Your task to perform on an android device: turn on priority inbox in the gmail app Image 0: 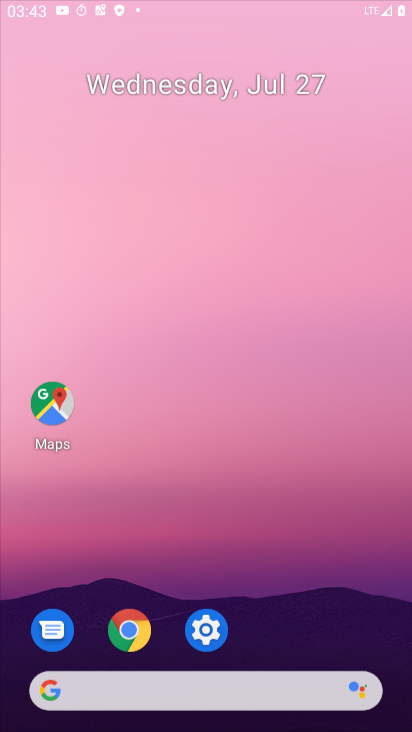
Step 0: drag from (192, 684) to (204, 270)
Your task to perform on an android device: turn on priority inbox in the gmail app Image 1: 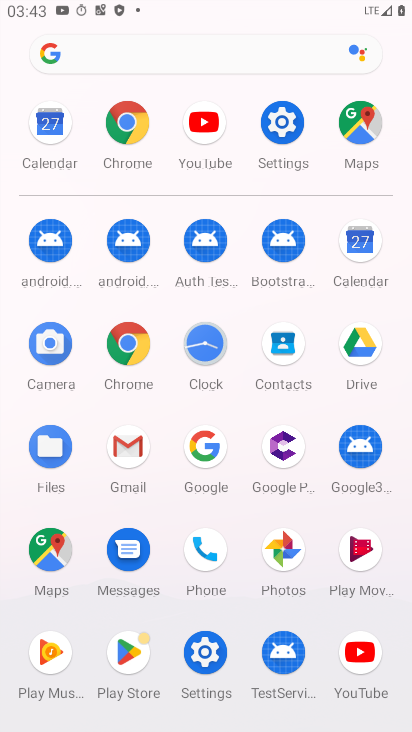
Step 1: click (137, 451)
Your task to perform on an android device: turn on priority inbox in the gmail app Image 2: 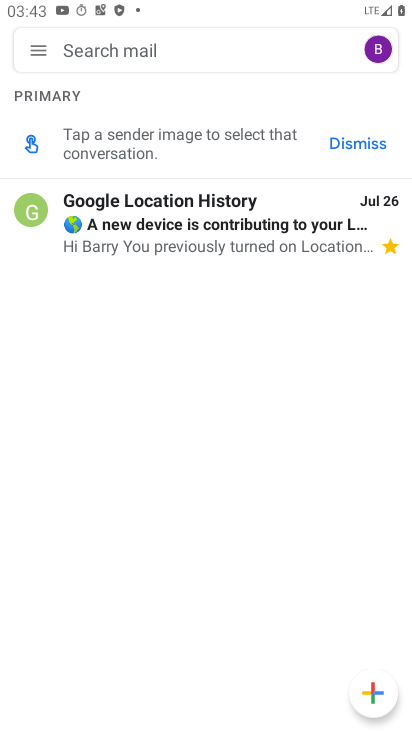
Step 2: click (44, 64)
Your task to perform on an android device: turn on priority inbox in the gmail app Image 3: 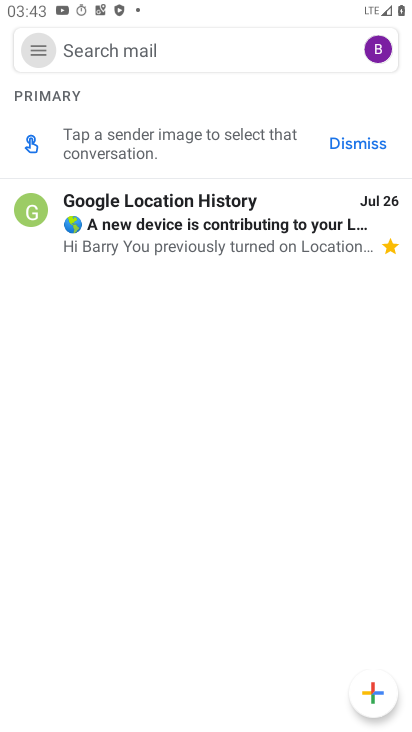
Step 3: click (44, 64)
Your task to perform on an android device: turn on priority inbox in the gmail app Image 4: 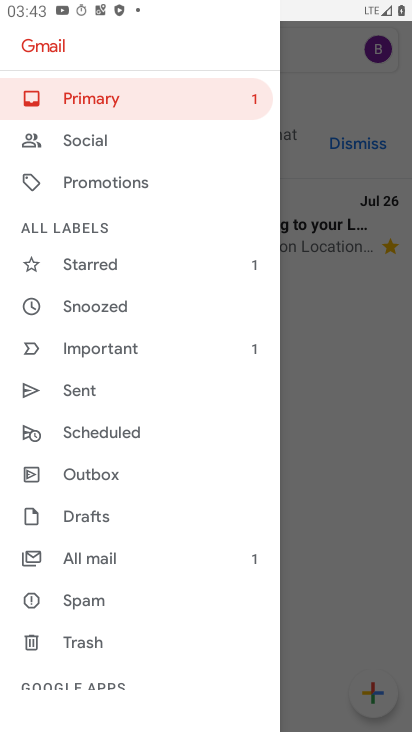
Step 4: drag from (93, 586) to (100, 305)
Your task to perform on an android device: turn on priority inbox in the gmail app Image 5: 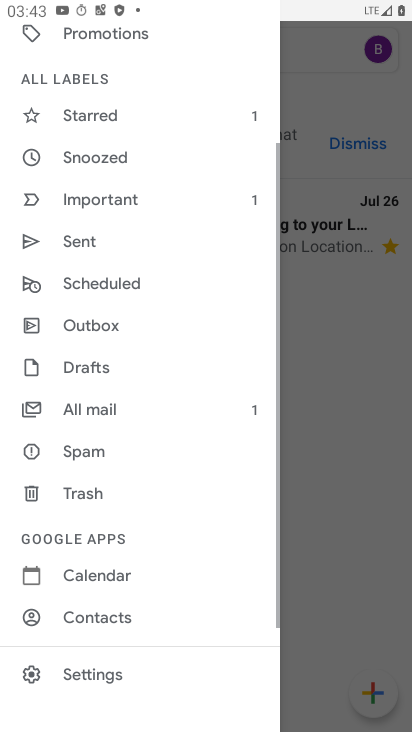
Step 5: drag from (164, 554) to (146, 276)
Your task to perform on an android device: turn on priority inbox in the gmail app Image 6: 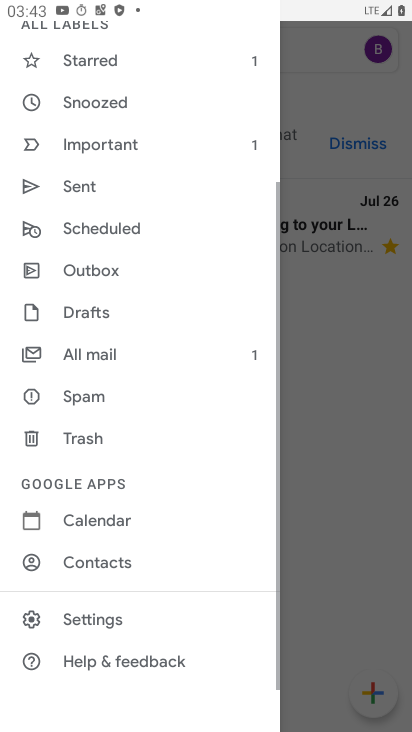
Step 6: click (95, 612)
Your task to perform on an android device: turn on priority inbox in the gmail app Image 7: 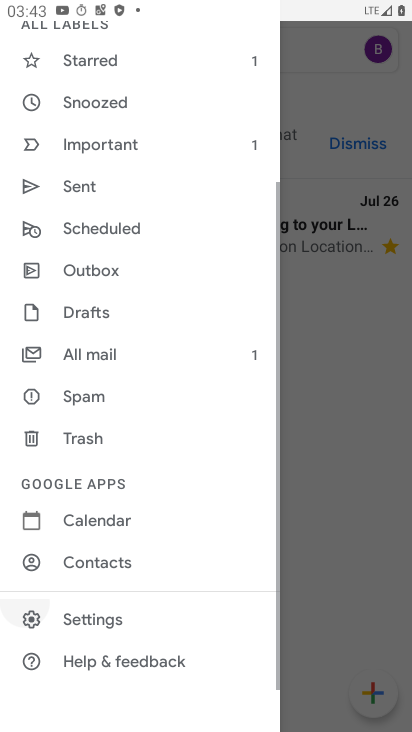
Step 7: click (96, 611)
Your task to perform on an android device: turn on priority inbox in the gmail app Image 8: 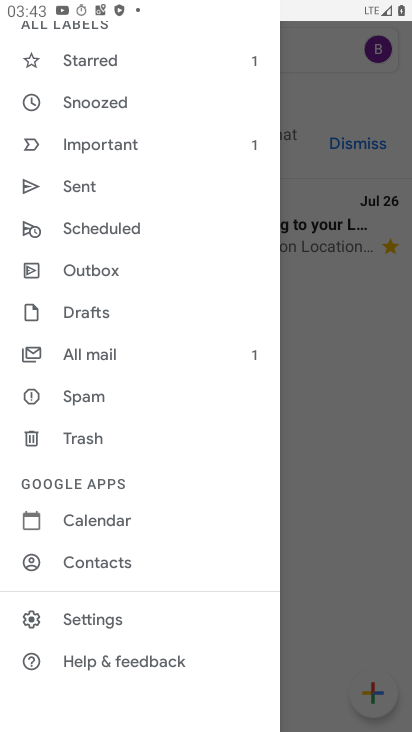
Step 8: click (103, 616)
Your task to perform on an android device: turn on priority inbox in the gmail app Image 9: 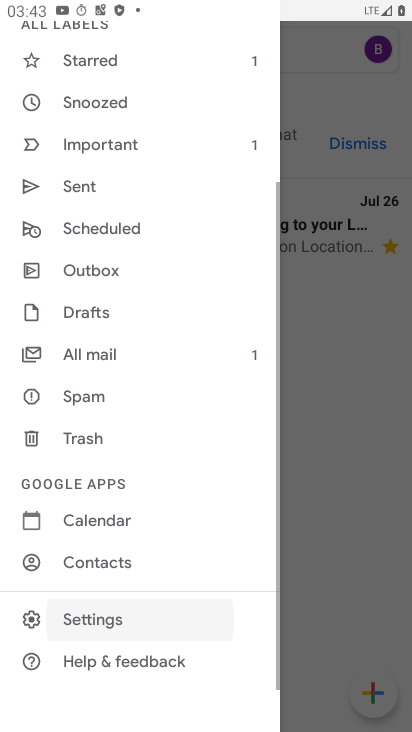
Step 9: click (101, 617)
Your task to perform on an android device: turn on priority inbox in the gmail app Image 10: 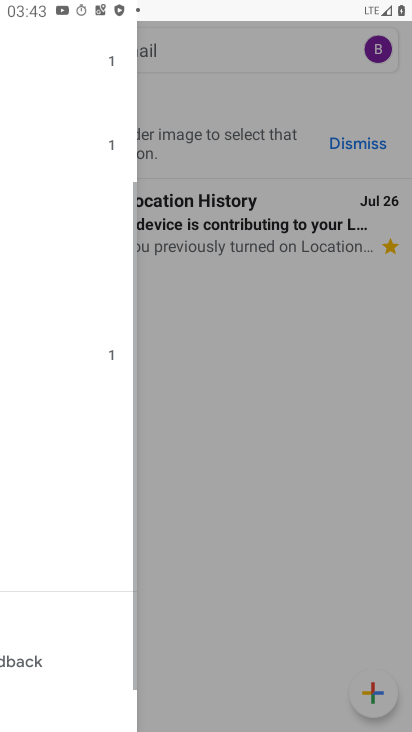
Step 10: click (102, 617)
Your task to perform on an android device: turn on priority inbox in the gmail app Image 11: 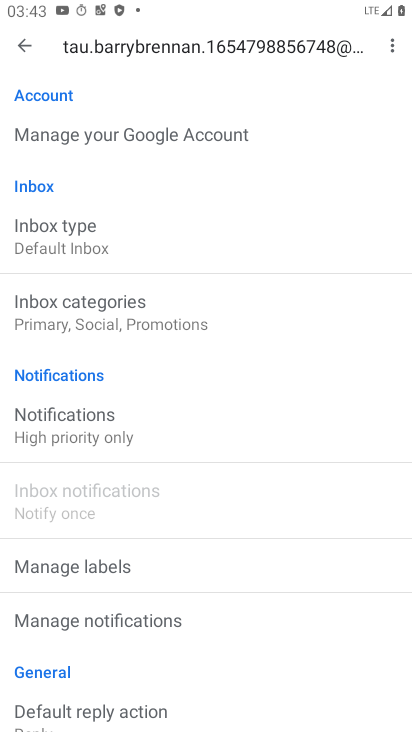
Step 11: click (75, 236)
Your task to perform on an android device: turn on priority inbox in the gmail app Image 12: 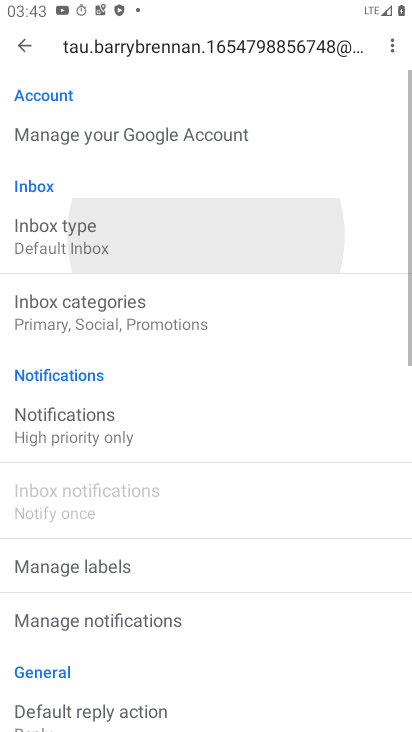
Step 12: click (72, 236)
Your task to perform on an android device: turn on priority inbox in the gmail app Image 13: 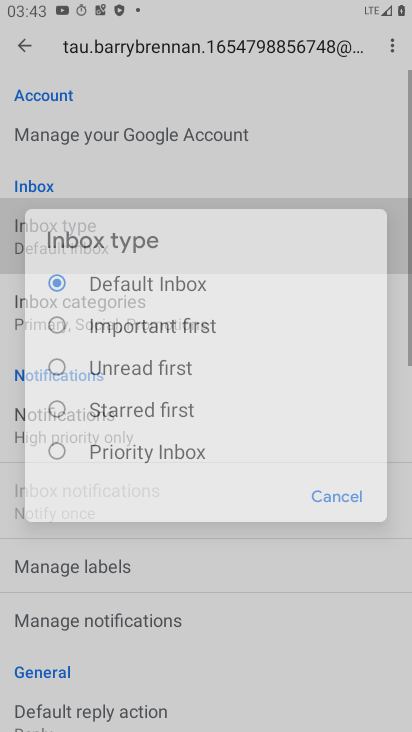
Step 13: click (72, 236)
Your task to perform on an android device: turn on priority inbox in the gmail app Image 14: 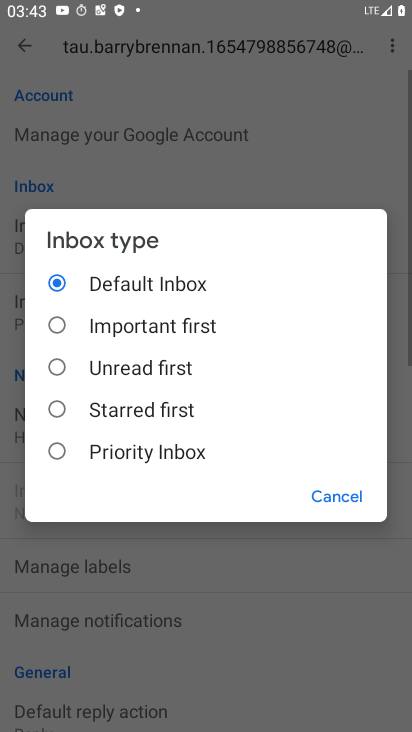
Step 14: click (60, 328)
Your task to perform on an android device: turn on priority inbox in the gmail app Image 15: 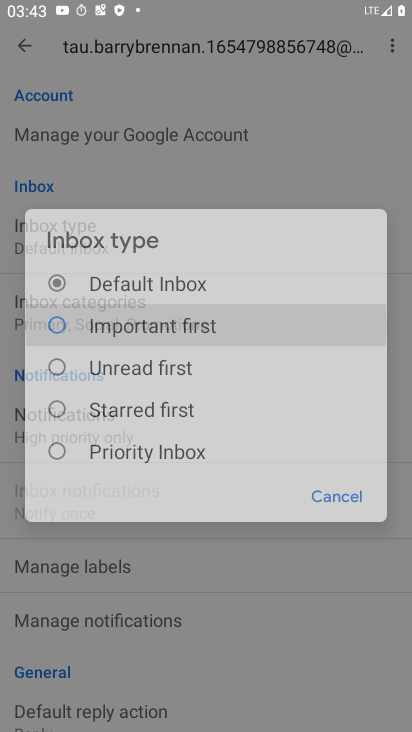
Step 15: click (65, 323)
Your task to perform on an android device: turn on priority inbox in the gmail app Image 16: 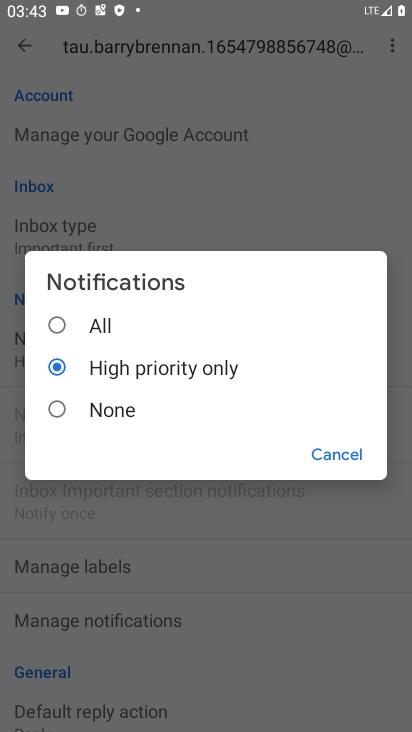
Step 16: click (329, 446)
Your task to perform on an android device: turn on priority inbox in the gmail app Image 17: 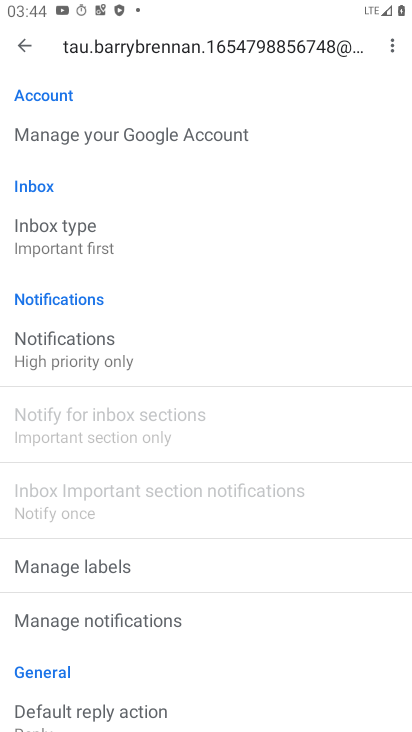
Step 17: click (21, 68)
Your task to perform on an android device: turn on priority inbox in the gmail app Image 18: 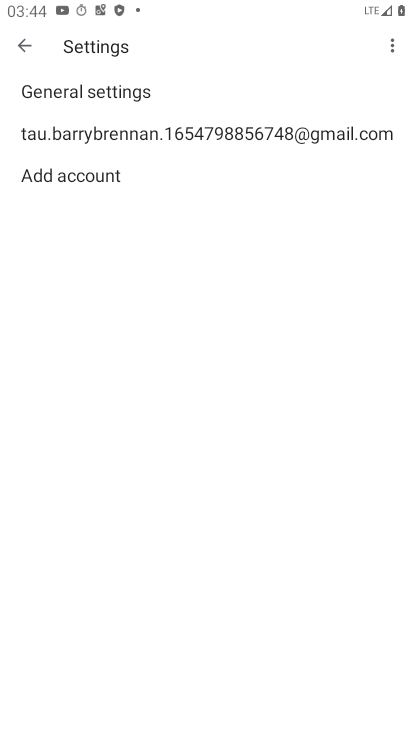
Step 18: click (115, 132)
Your task to perform on an android device: turn on priority inbox in the gmail app Image 19: 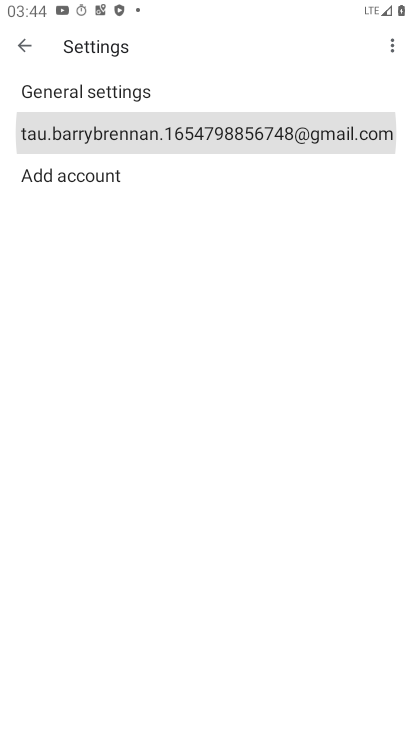
Step 19: click (115, 132)
Your task to perform on an android device: turn on priority inbox in the gmail app Image 20: 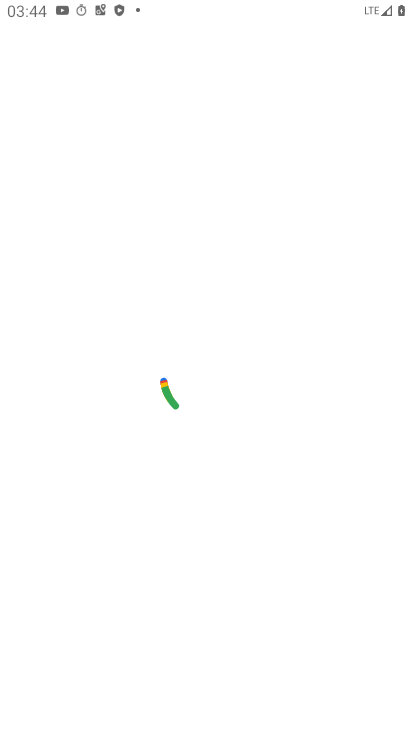
Step 20: press back button
Your task to perform on an android device: turn on priority inbox in the gmail app Image 21: 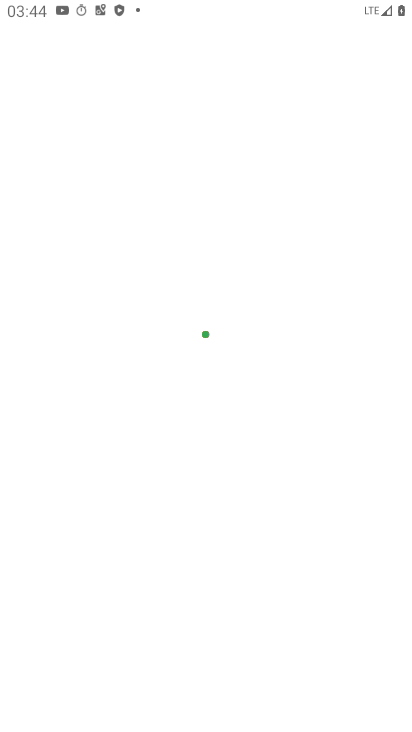
Step 21: press back button
Your task to perform on an android device: turn on priority inbox in the gmail app Image 22: 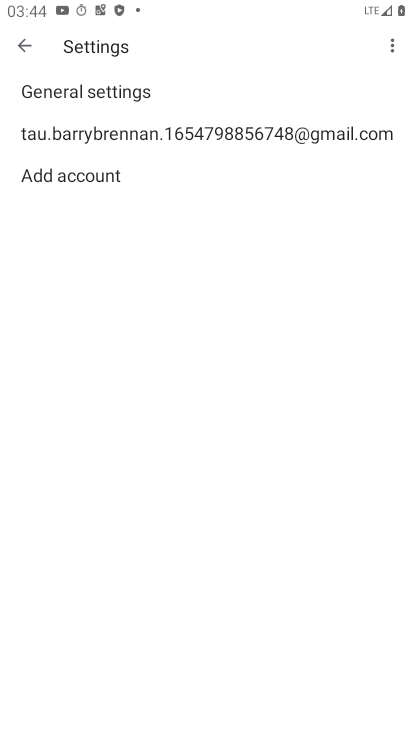
Step 22: click (45, 132)
Your task to perform on an android device: turn on priority inbox in the gmail app Image 23: 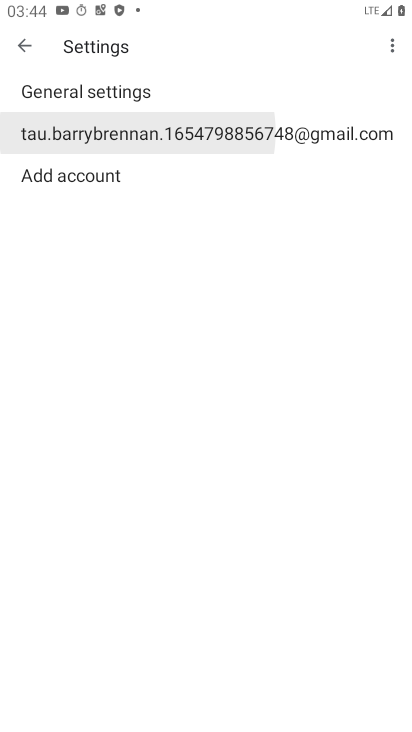
Step 23: click (49, 133)
Your task to perform on an android device: turn on priority inbox in the gmail app Image 24: 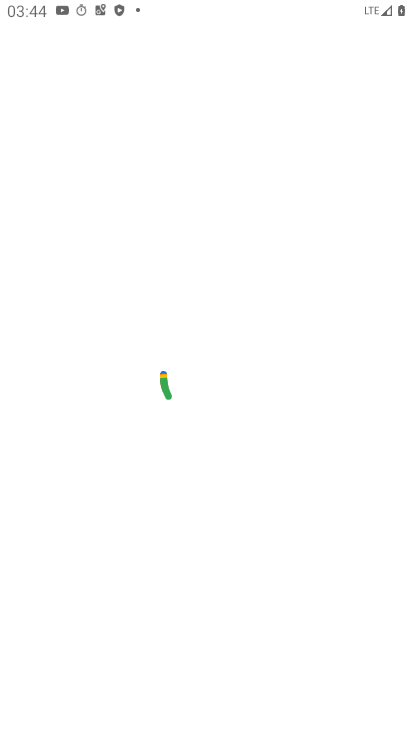
Step 24: press back button
Your task to perform on an android device: turn on priority inbox in the gmail app Image 25: 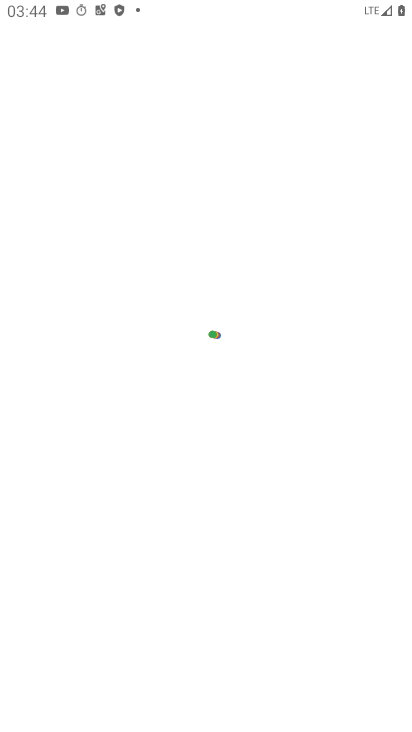
Step 25: press back button
Your task to perform on an android device: turn on priority inbox in the gmail app Image 26: 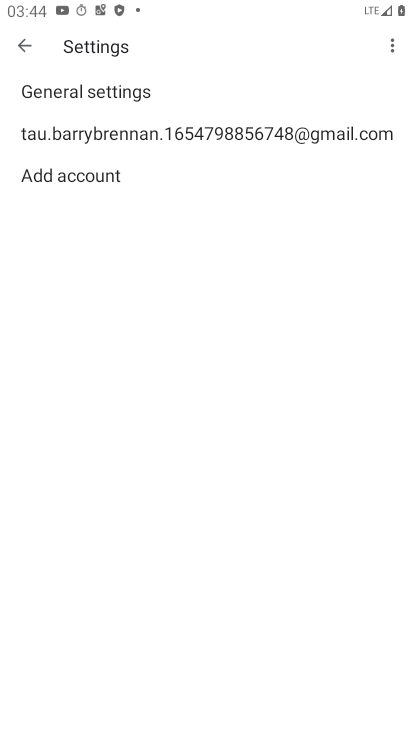
Step 26: click (75, 124)
Your task to perform on an android device: turn on priority inbox in the gmail app Image 27: 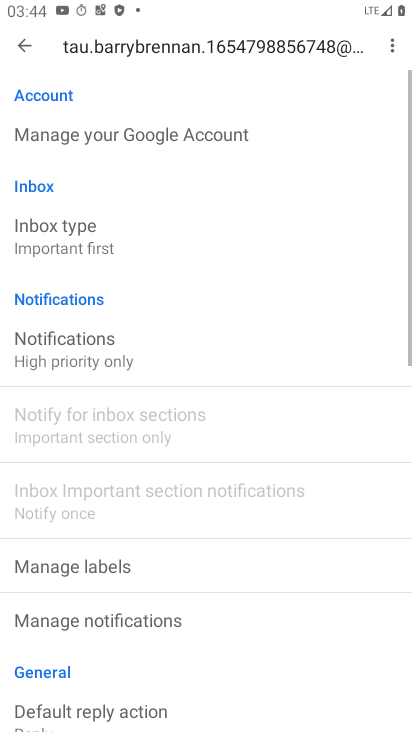
Step 27: click (64, 236)
Your task to perform on an android device: turn on priority inbox in the gmail app Image 28: 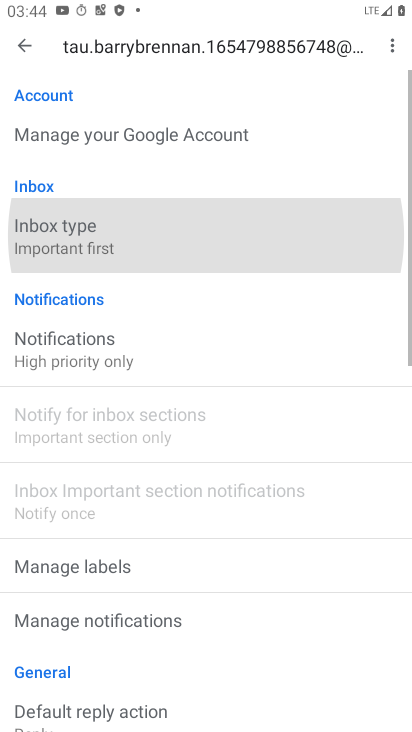
Step 28: click (62, 238)
Your task to perform on an android device: turn on priority inbox in the gmail app Image 29: 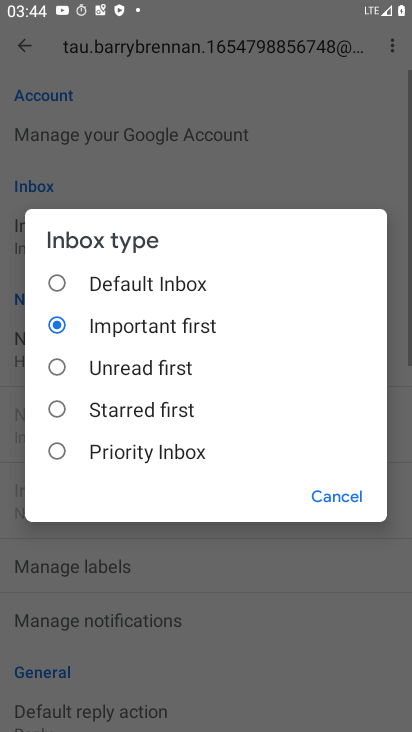
Step 29: click (53, 445)
Your task to perform on an android device: turn on priority inbox in the gmail app Image 30: 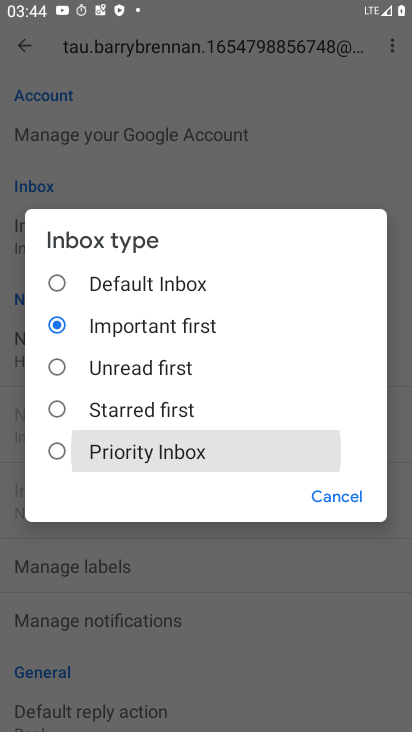
Step 30: click (56, 442)
Your task to perform on an android device: turn on priority inbox in the gmail app Image 31: 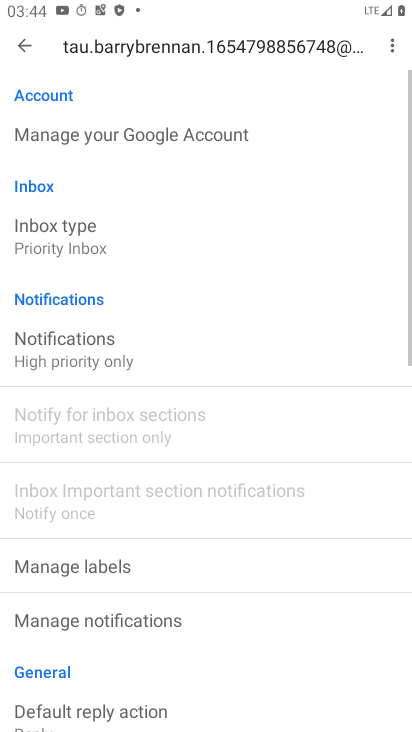
Step 31: task complete